Your task to perform on an android device: Open Google Chrome Image 0: 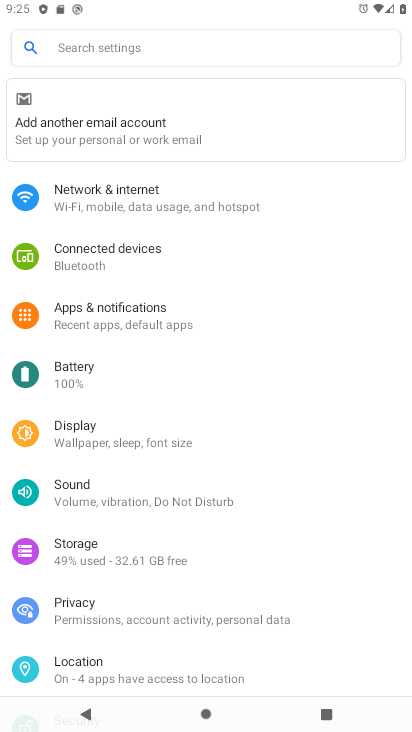
Step 0: press home button
Your task to perform on an android device: Open Google Chrome Image 1: 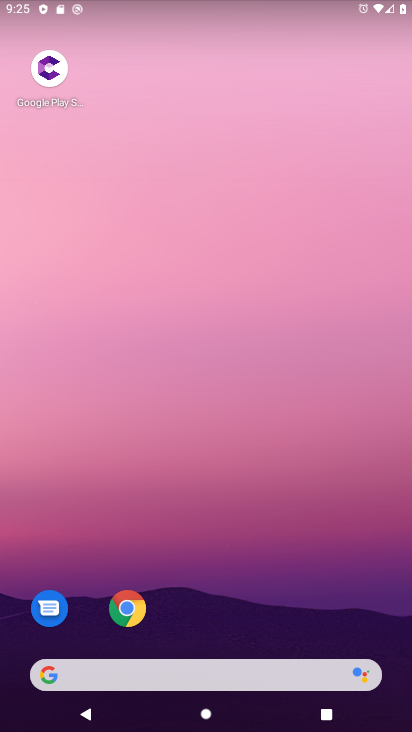
Step 1: click (135, 606)
Your task to perform on an android device: Open Google Chrome Image 2: 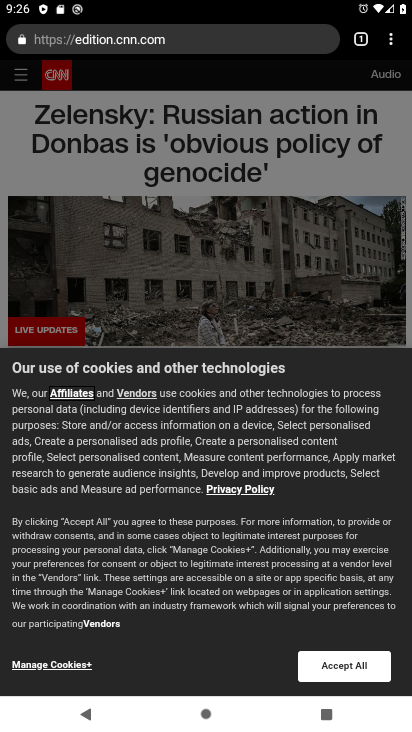
Step 2: task complete